Your task to perform on an android device: toggle pop-ups in chrome Image 0: 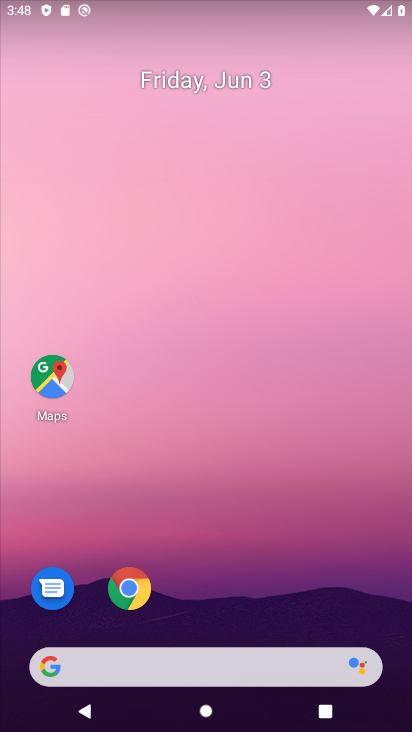
Step 0: click (129, 605)
Your task to perform on an android device: toggle pop-ups in chrome Image 1: 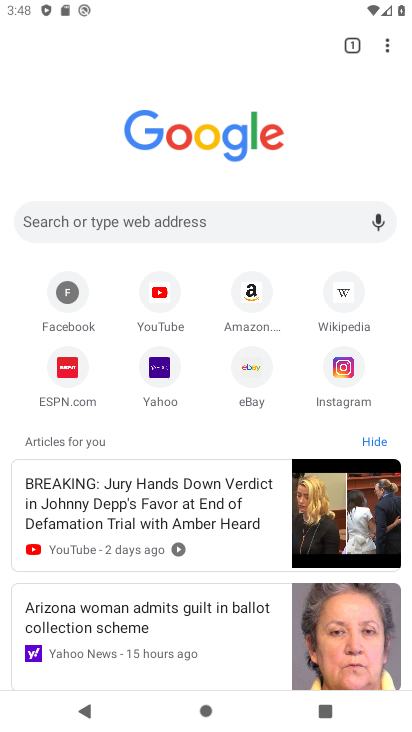
Step 1: click (393, 46)
Your task to perform on an android device: toggle pop-ups in chrome Image 2: 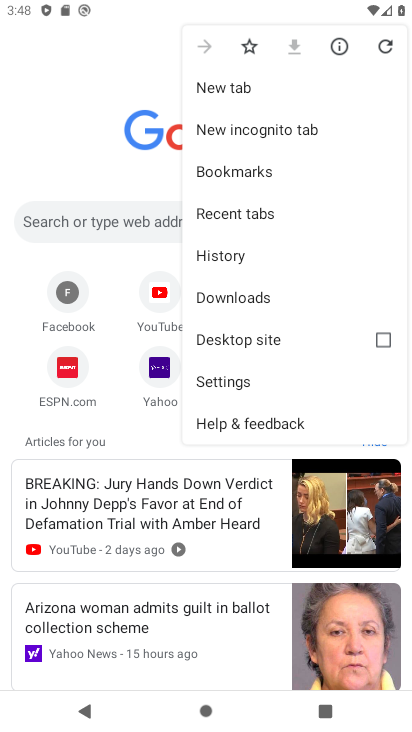
Step 2: click (267, 382)
Your task to perform on an android device: toggle pop-ups in chrome Image 3: 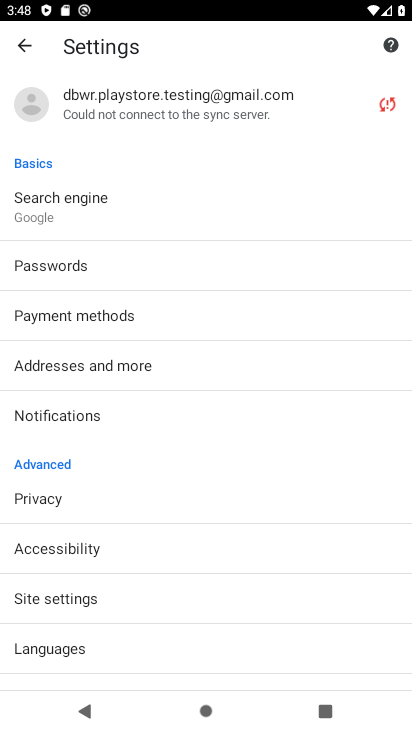
Step 3: click (207, 607)
Your task to perform on an android device: toggle pop-ups in chrome Image 4: 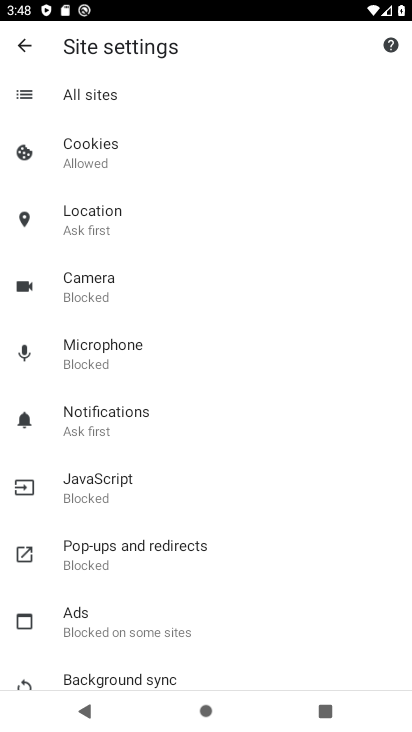
Step 4: click (180, 570)
Your task to perform on an android device: toggle pop-ups in chrome Image 5: 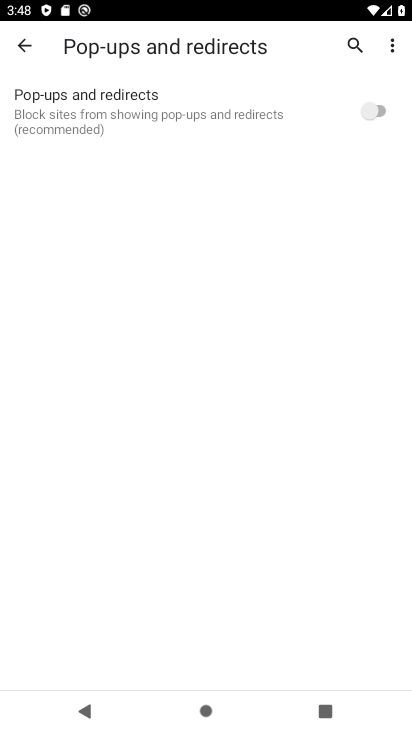
Step 5: click (367, 100)
Your task to perform on an android device: toggle pop-ups in chrome Image 6: 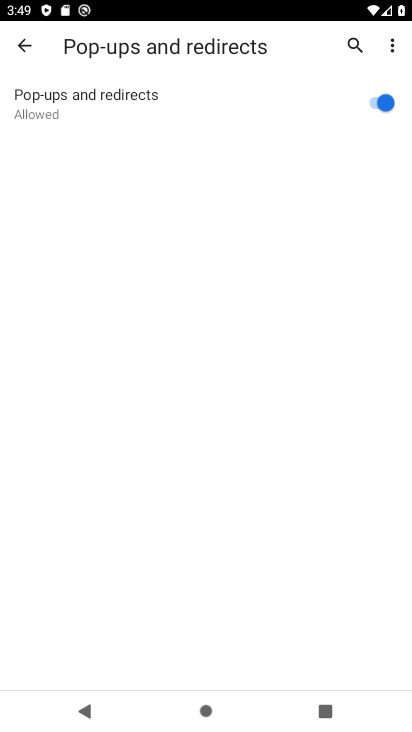
Step 6: task complete